Your task to perform on an android device: Go to Android settings Image 0: 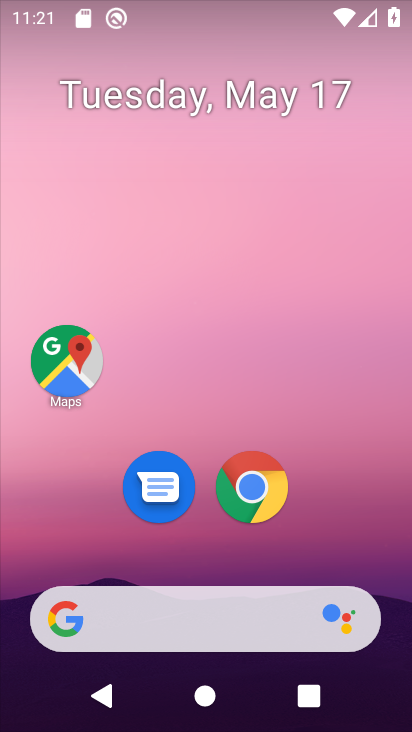
Step 0: drag from (378, 552) to (265, 81)
Your task to perform on an android device: Go to Android settings Image 1: 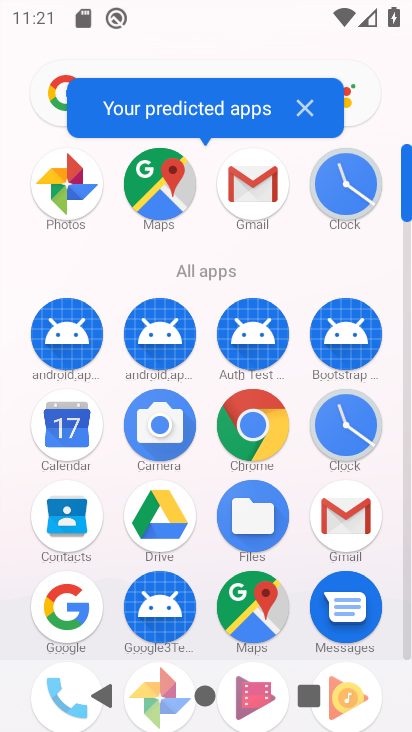
Step 1: click (408, 657)
Your task to perform on an android device: Go to Android settings Image 2: 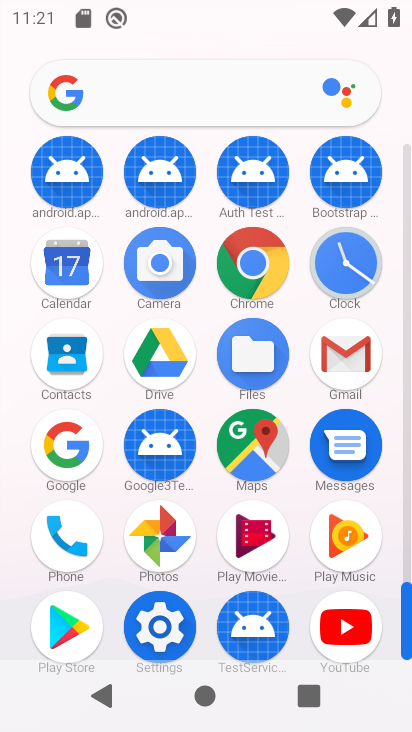
Step 2: click (165, 623)
Your task to perform on an android device: Go to Android settings Image 3: 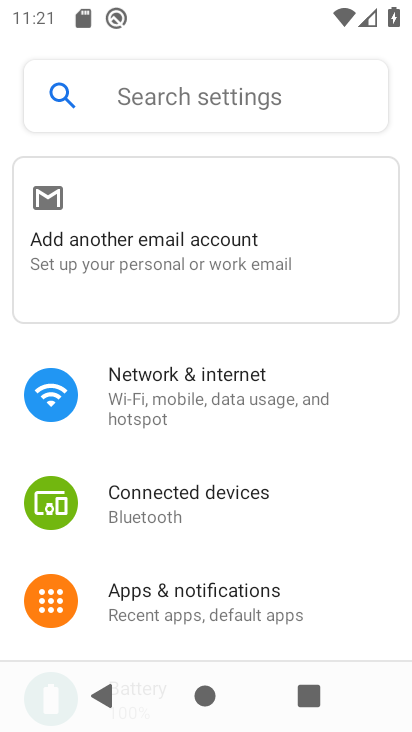
Step 3: task complete